Your task to perform on an android device: See recent photos Image 0: 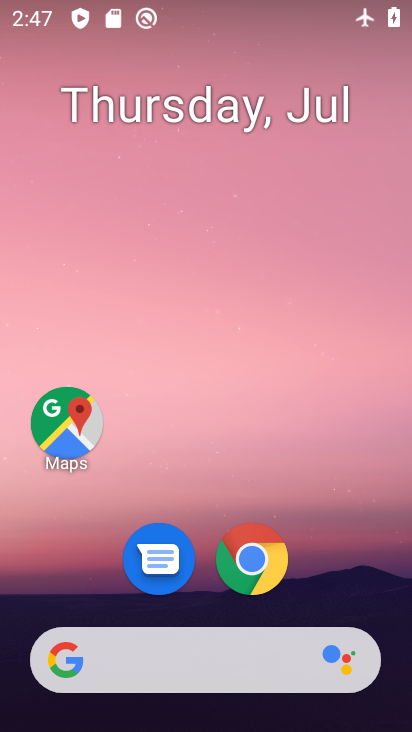
Step 0: drag from (182, 439) to (219, 173)
Your task to perform on an android device: See recent photos Image 1: 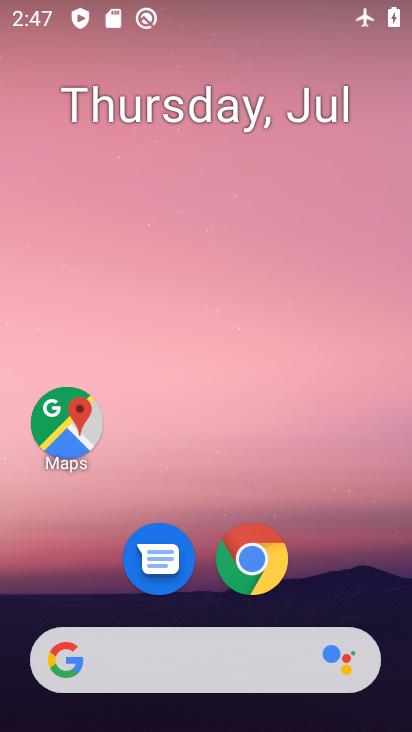
Step 1: drag from (219, 620) to (279, 149)
Your task to perform on an android device: See recent photos Image 2: 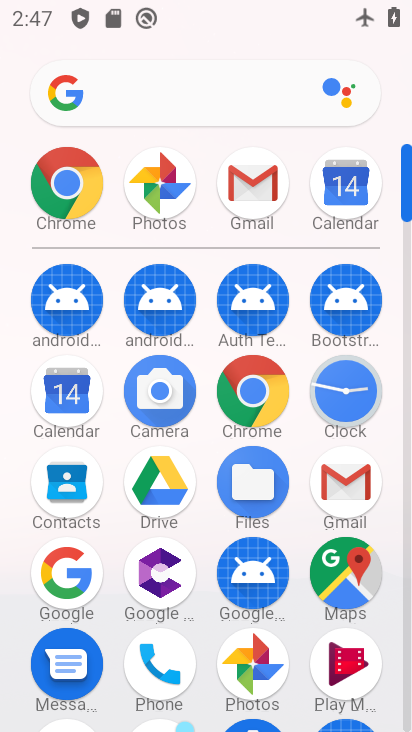
Step 2: drag from (203, 505) to (237, 207)
Your task to perform on an android device: See recent photos Image 3: 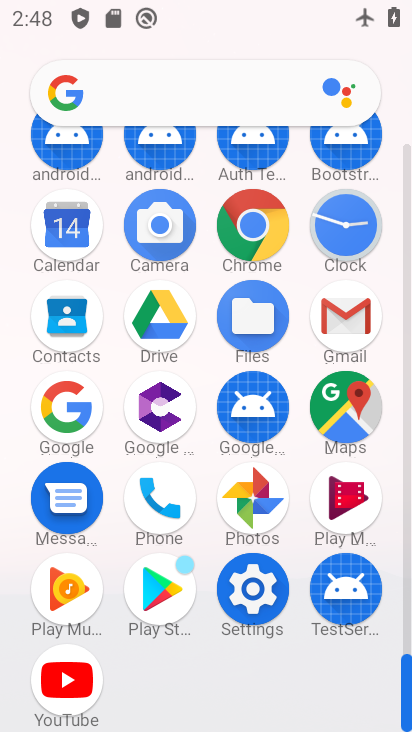
Step 3: click (257, 509)
Your task to perform on an android device: See recent photos Image 4: 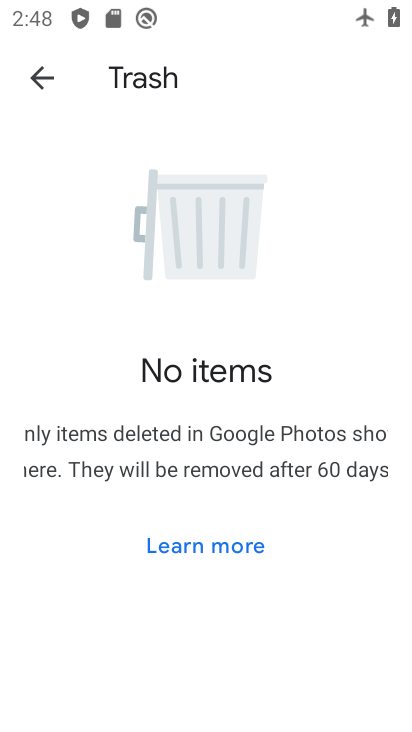
Step 4: click (48, 75)
Your task to perform on an android device: See recent photos Image 5: 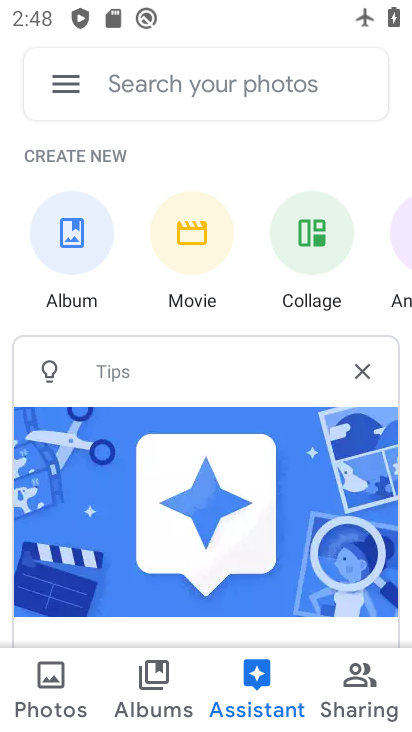
Step 5: click (45, 694)
Your task to perform on an android device: See recent photos Image 6: 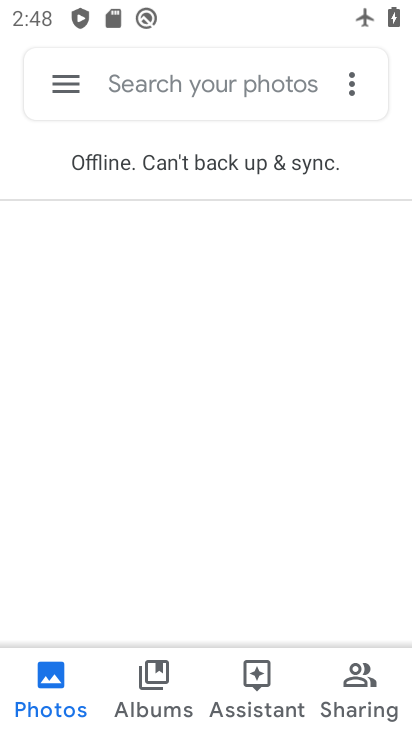
Step 6: task complete